Your task to perform on an android device: change timer sound Image 0: 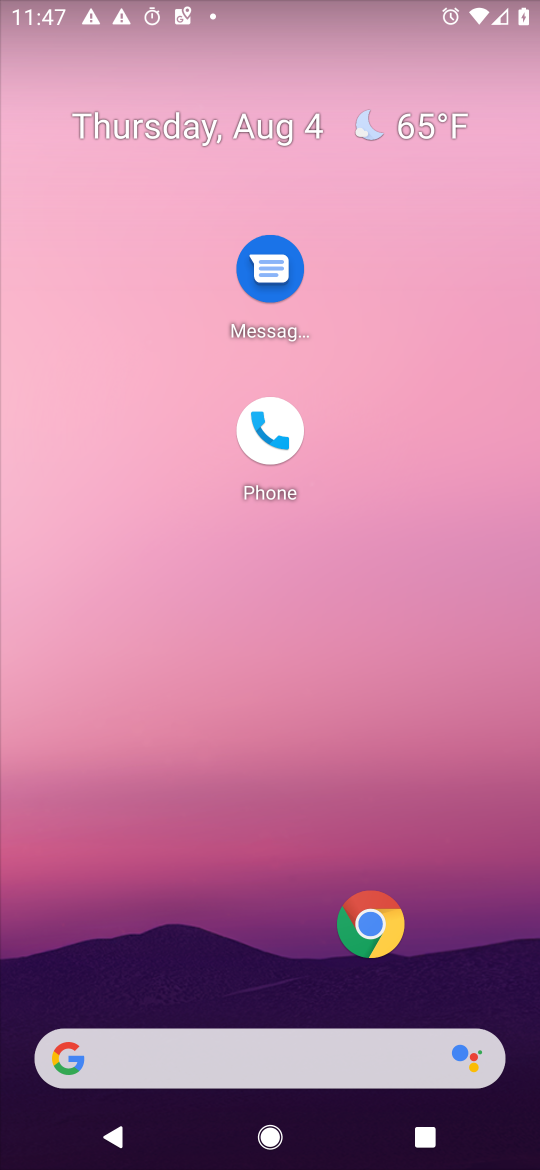
Step 0: drag from (273, 947) to (383, 190)
Your task to perform on an android device: change timer sound Image 1: 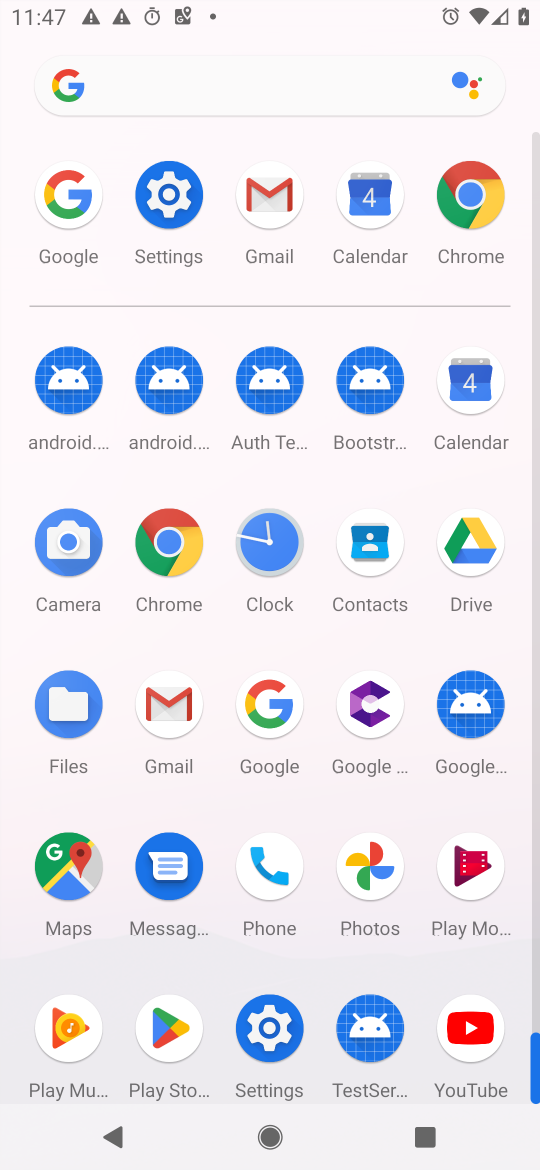
Step 1: click (256, 540)
Your task to perform on an android device: change timer sound Image 2: 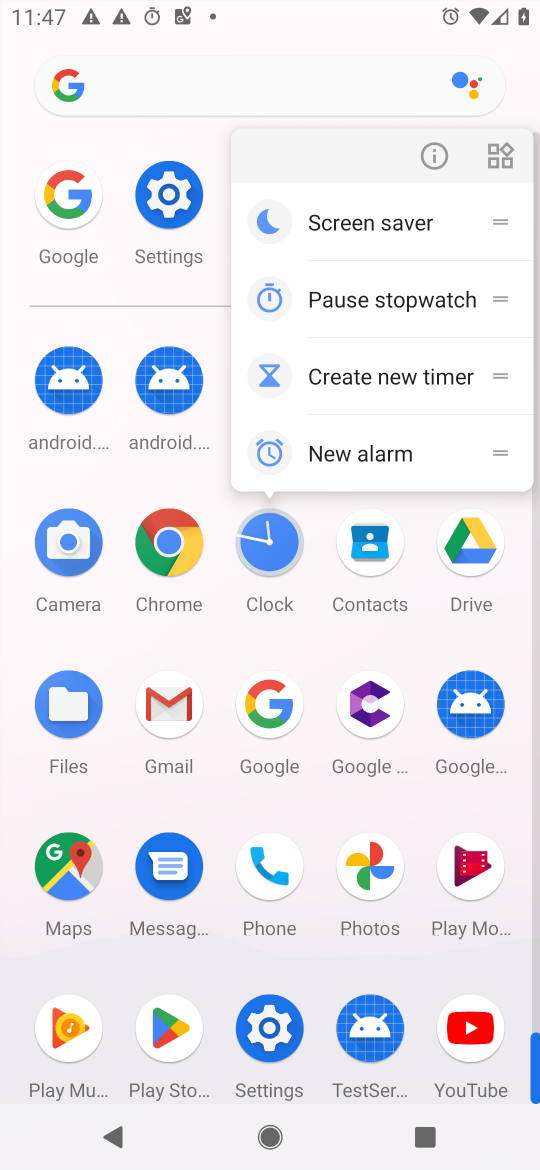
Step 2: click (410, 173)
Your task to perform on an android device: change timer sound Image 3: 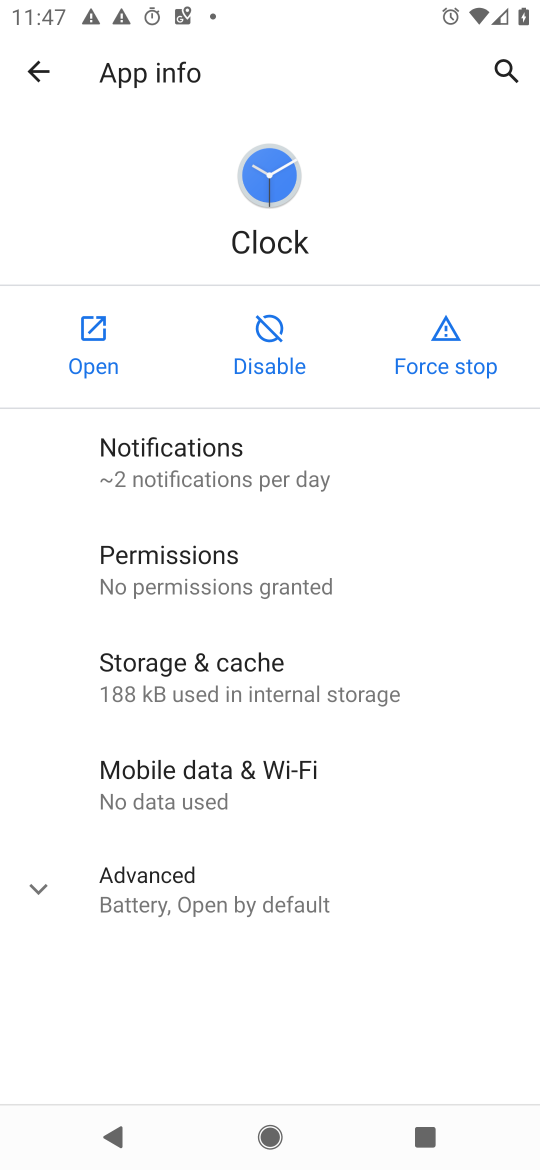
Step 3: click (88, 324)
Your task to perform on an android device: change timer sound Image 4: 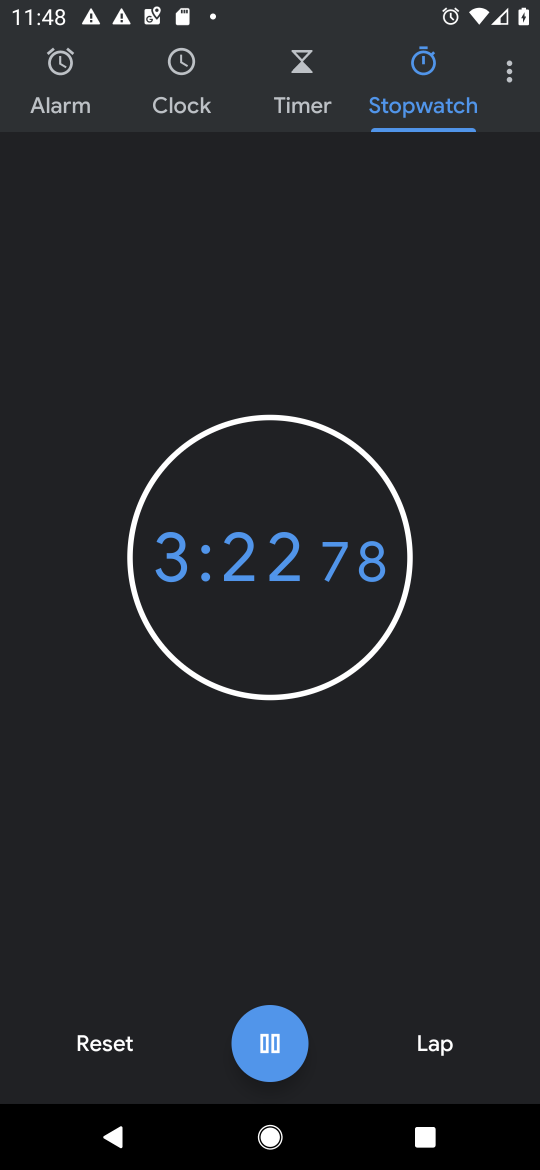
Step 4: click (520, 59)
Your task to perform on an android device: change timer sound Image 5: 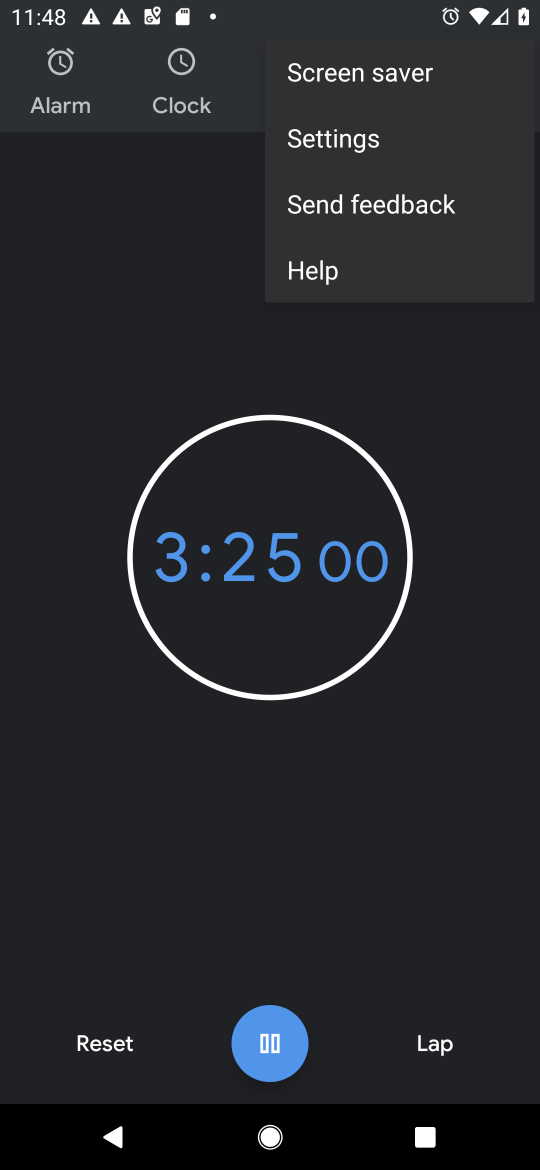
Step 5: click (374, 125)
Your task to perform on an android device: change timer sound Image 6: 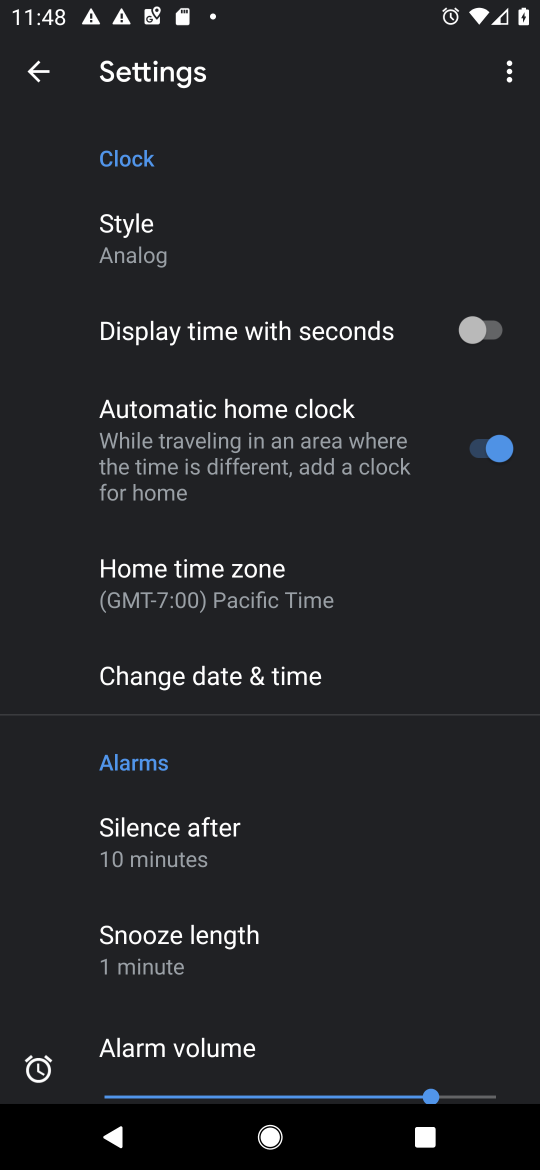
Step 6: drag from (276, 819) to (352, 314)
Your task to perform on an android device: change timer sound Image 7: 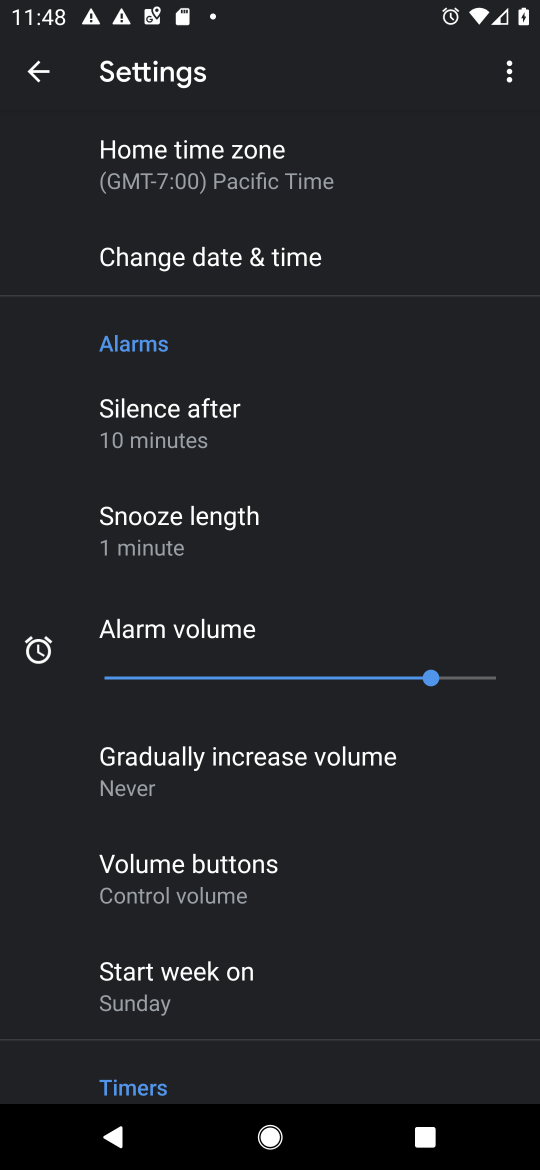
Step 7: drag from (232, 817) to (307, 367)
Your task to perform on an android device: change timer sound Image 8: 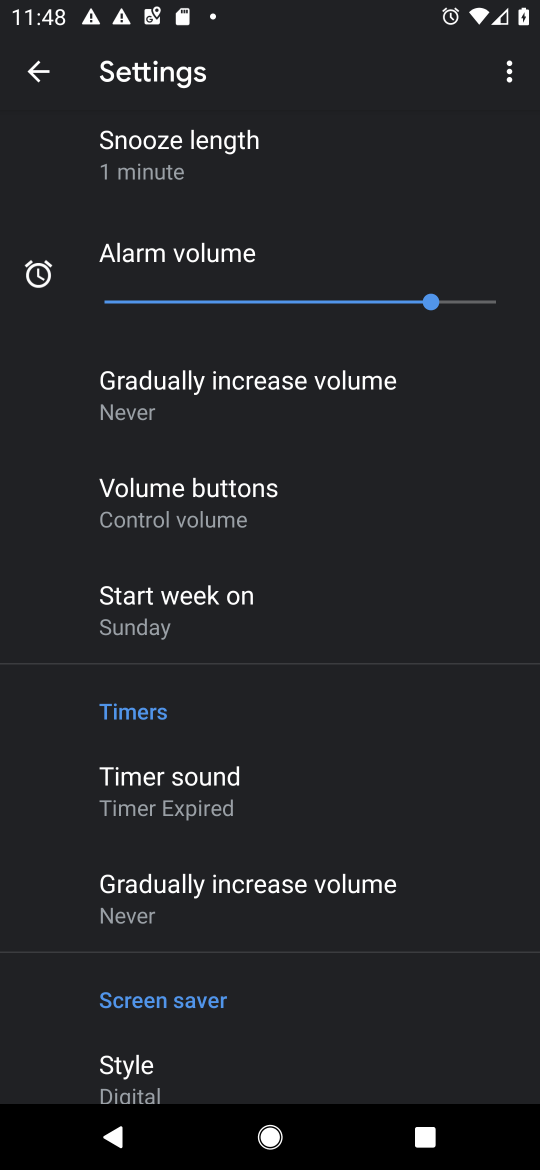
Step 8: click (219, 757)
Your task to perform on an android device: change timer sound Image 9: 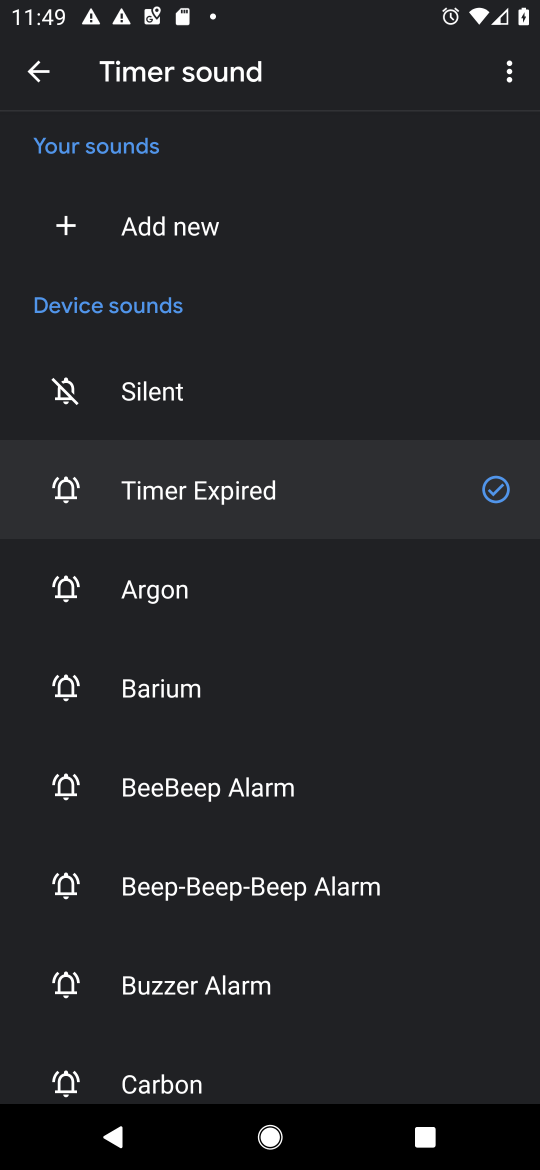
Step 9: click (296, 577)
Your task to perform on an android device: change timer sound Image 10: 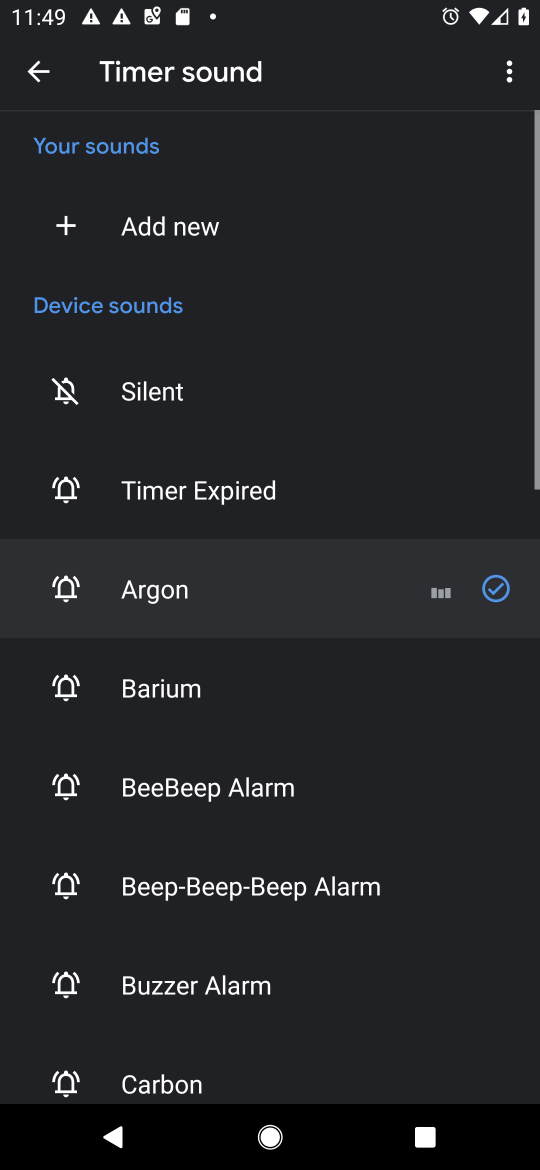
Step 10: click (493, 592)
Your task to perform on an android device: change timer sound Image 11: 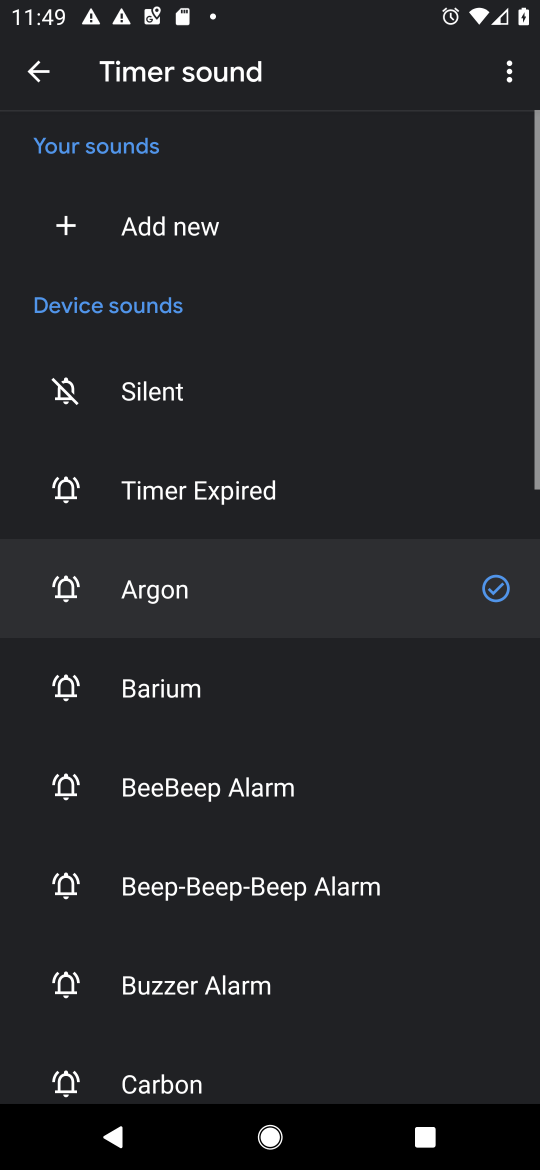
Step 11: task complete